Your task to perform on an android device: Open Maps and search for coffee Image 0: 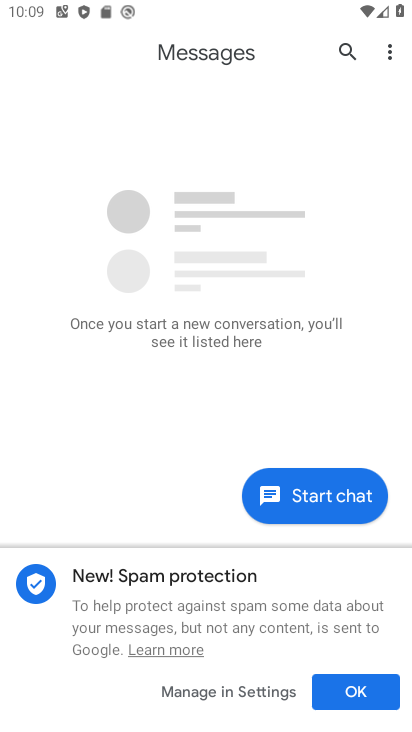
Step 0: press home button
Your task to perform on an android device: Open Maps and search for coffee Image 1: 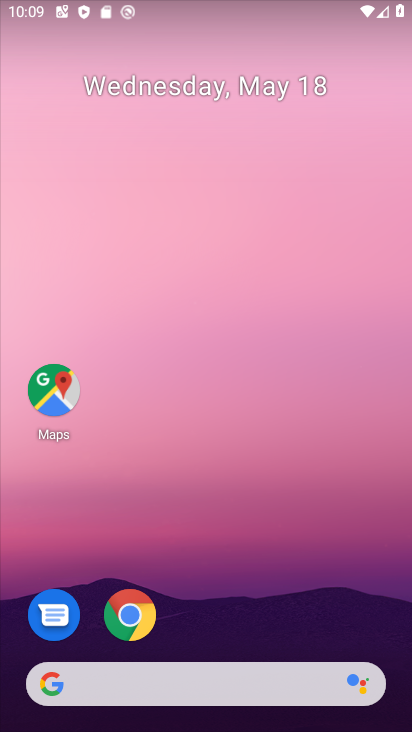
Step 1: click (61, 400)
Your task to perform on an android device: Open Maps and search for coffee Image 2: 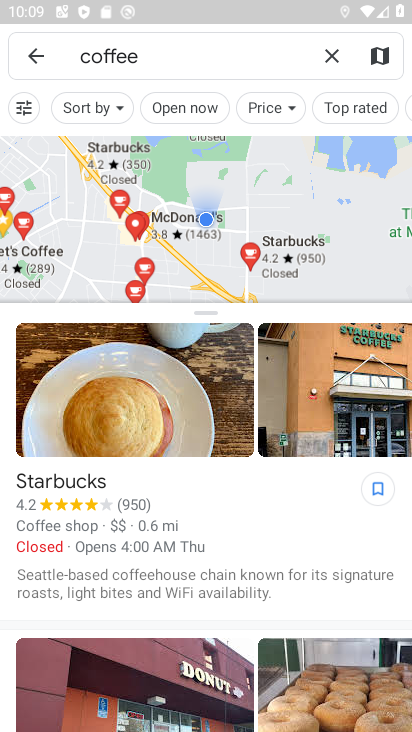
Step 2: task complete